Your task to perform on an android device: Open Youtube and go to the subscriptions tab Image 0: 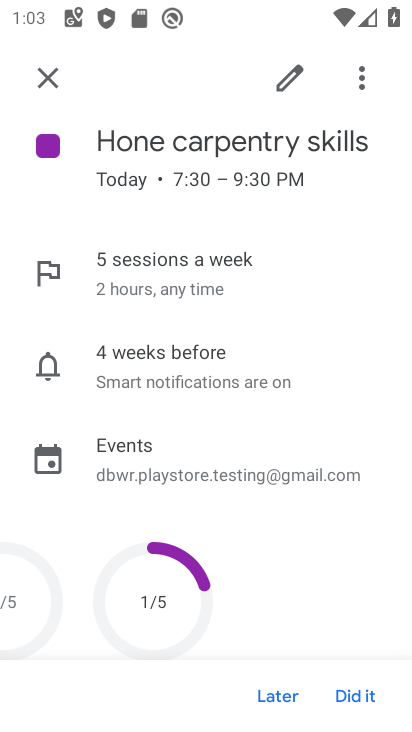
Step 0: press home button
Your task to perform on an android device: Open Youtube and go to the subscriptions tab Image 1: 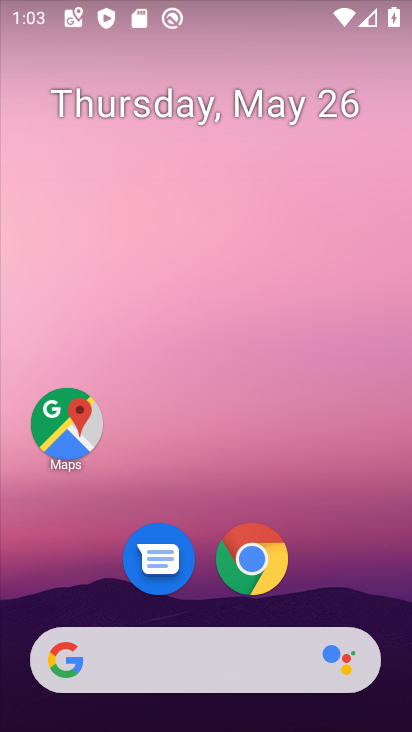
Step 1: drag from (225, 661) to (363, 40)
Your task to perform on an android device: Open Youtube and go to the subscriptions tab Image 2: 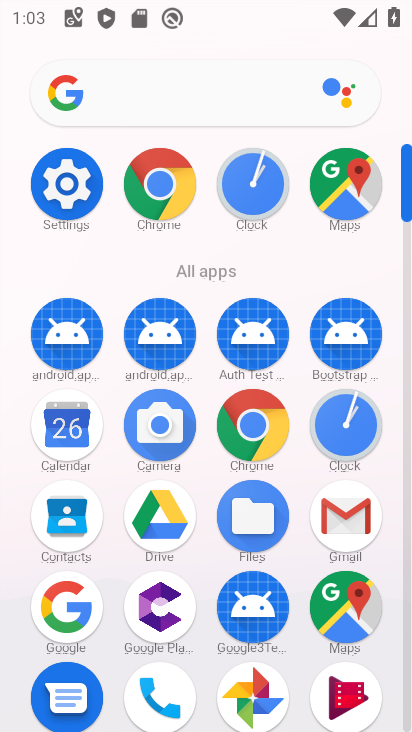
Step 2: drag from (220, 608) to (306, 10)
Your task to perform on an android device: Open Youtube and go to the subscriptions tab Image 3: 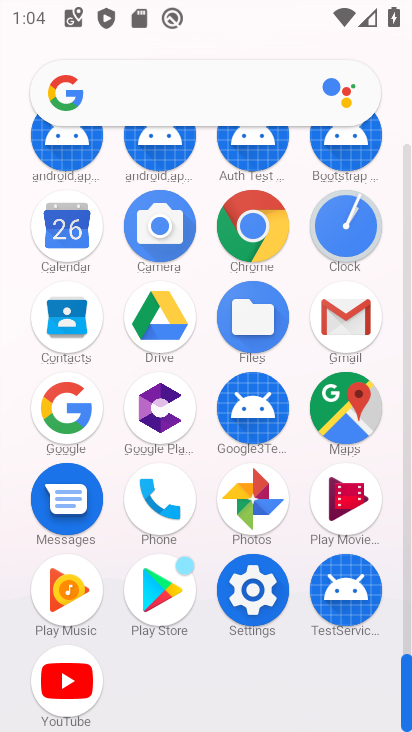
Step 3: click (75, 686)
Your task to perform on an android device: Open Youtube and go to the subscriptions tab Image 4: 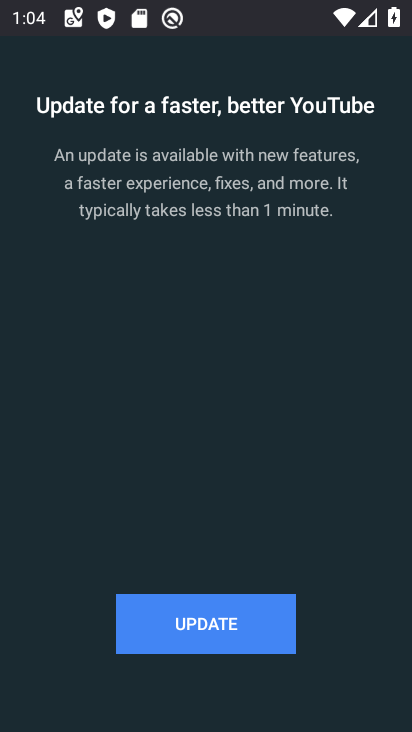
Step 4: click (209, 622)
Your task to perform on an android device: Open Youtube and go to the subscriptions tab Image 5: 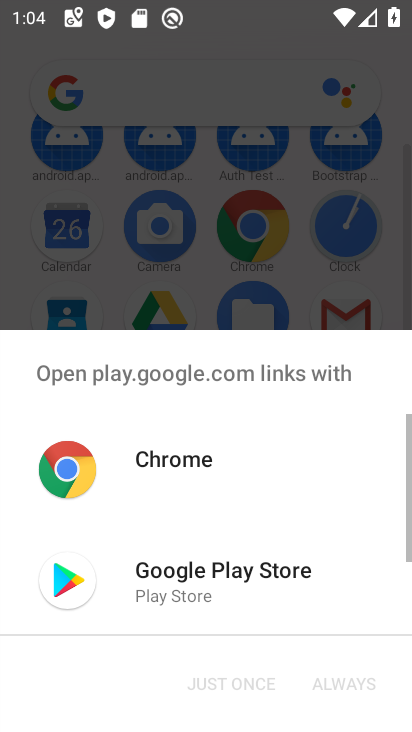
Step 5: click (161, 569)
Your task to perform on an android device: Open Youtube and go to the subscriptions tab Image 6: 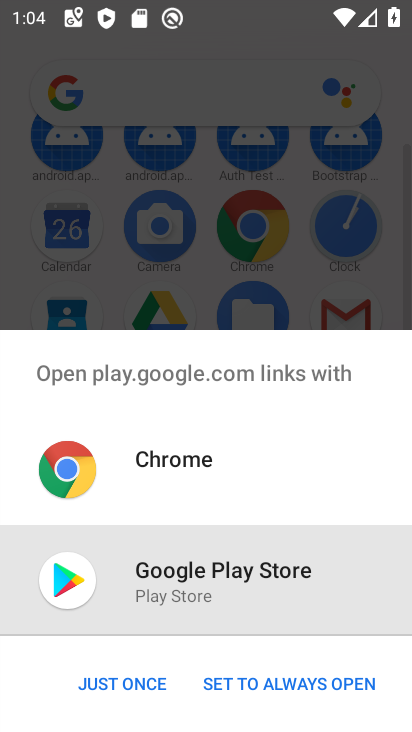
Step 6: click (148, 690)
Your task to perform on an android device: Open Youtube and go to the subscriptions tab Image 7: 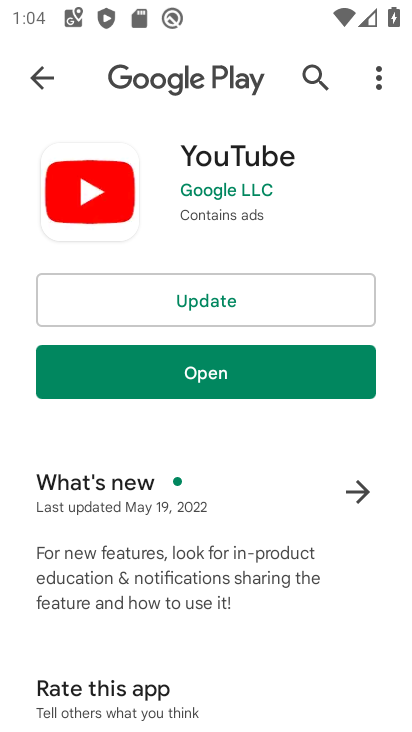
Step 7: click (215, 301)
Your task to perform on an android device: Open Youtube and go to the subscriptions tab Image 8: 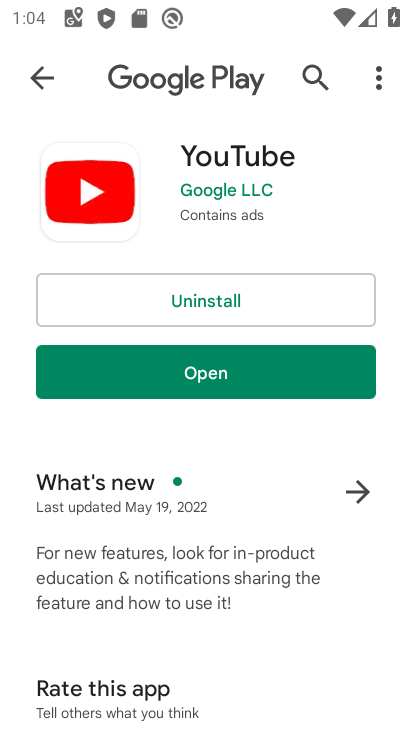
Step 8: click (211, 381)
Your task to perform on an android device: Open Youtube and go to the subscriptions tab Image 9: 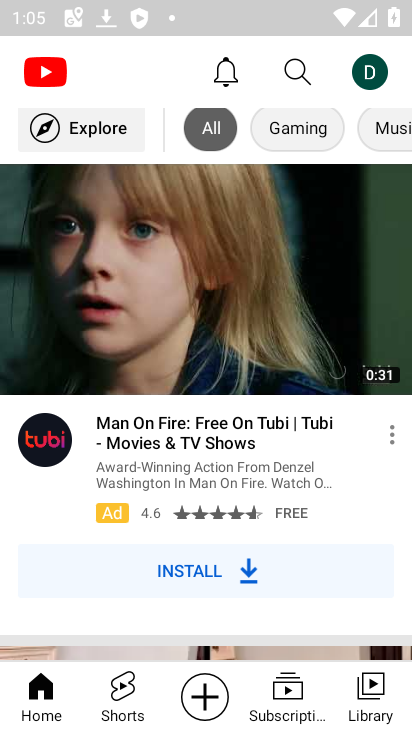
Step 9: click (286, 699)
Your task to perform on an android device: Open Youtube and go to the subscriptions tab Image 10: 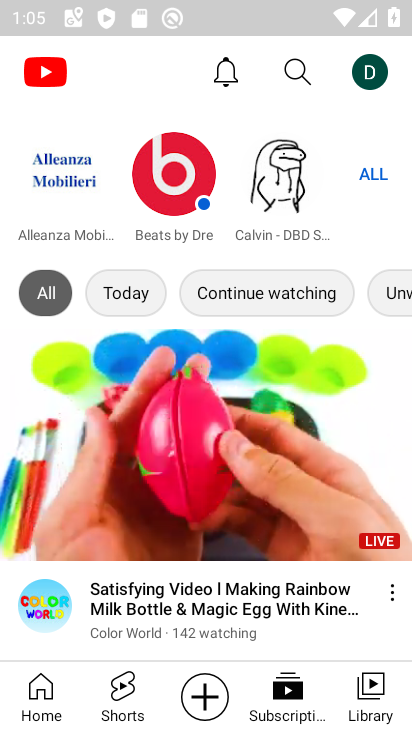
Step 10: task complete